Your task to perform on an android device: Search for acer predator on newegg.com, select the first entry, add it to the cart, then select checkout. Image 0: 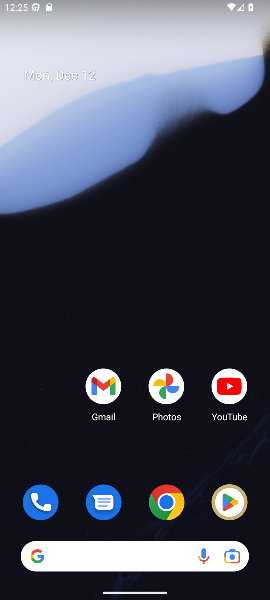
Step 0: click (175, 482)
Your task to perform on an android device: Search for acer predator on newegg.com, select the first entry, add it to the cart, then select checkout. Image 1: 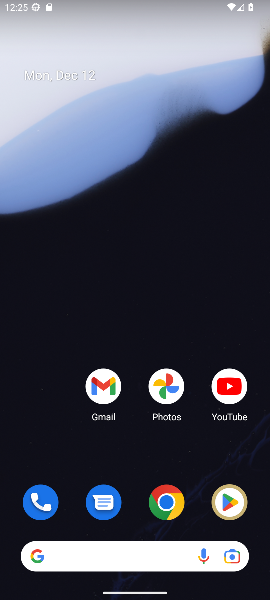
Step 1: click (175, 502)
Your task to perform on an android device: Search for acer predator on newegg.com, select the first entry, add it to the cart, then select checkout. Image 2: 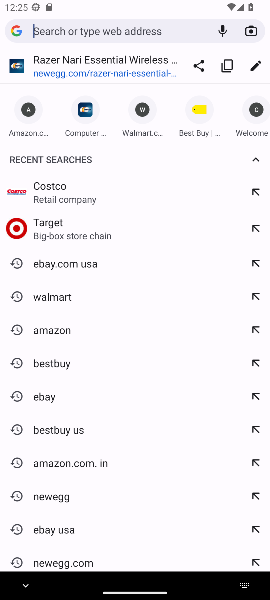
Step 2: type "newegg"
Your task to perform on an android device: Search for acer predator on newegg.com, select the first entry, add it to the cart, then select checkout. Image 3: 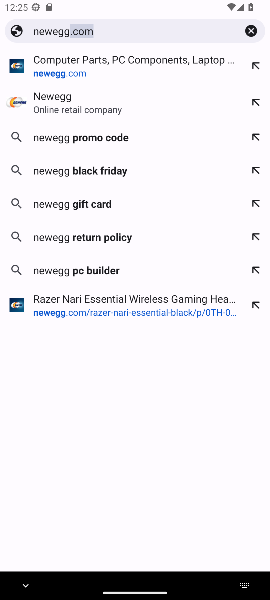
Step 3: click (147, 83)
Your task to perform on an android device: Search for acer predator on newegg.com, select the first entry, add it to the cart, then select checkout. Image 4: 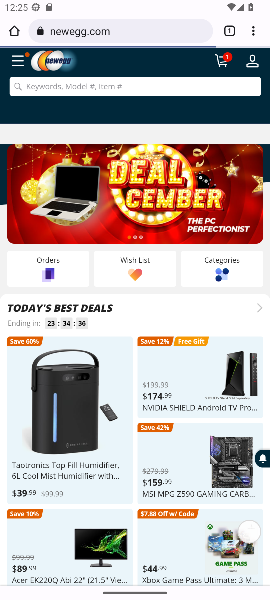
Step 4: click (147, 83)
Your task to perform on an android device: Search for acer predator on newegg.com, select the first entry, add it to the cart, then select checkout. Image 5: 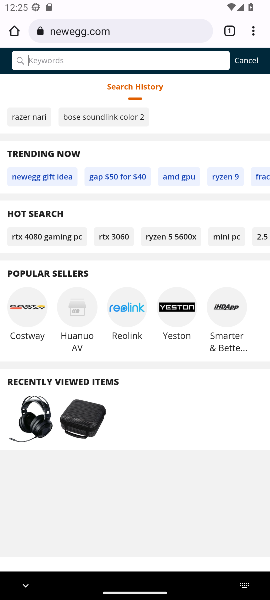
Step 5: type "acer predator"
Your task to perform on an android device: Search for acer predator on newegg.com, select the first entry, add it to the cart, then select checkout. Image 6: 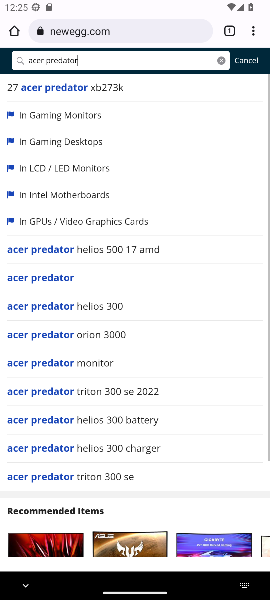
Step 6: click (78, 94)
Your task to perform on an android device: Search for acer predator on newegg.com, select the first entry, add it to the cart, then select checkout. Image 7: 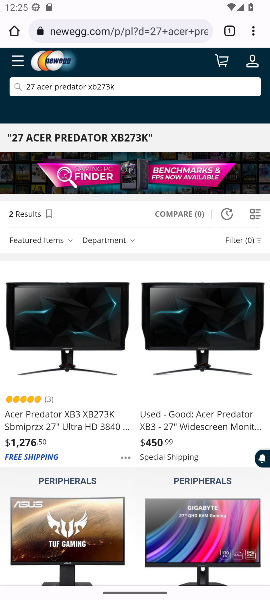
Step 7: click (64, 330)
Your task to perform on an android device: Search for acer predator on newegg.com, select the first entry, add it to the cart, then select checkout. Image 8: 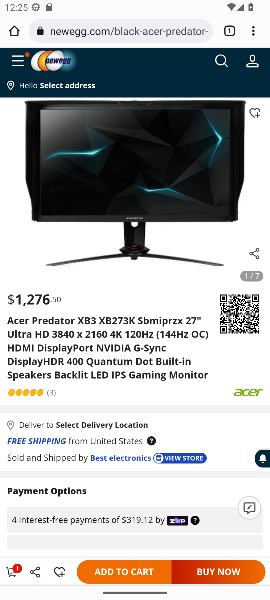
Step 8: click (128, 580)
Your task to perform on an android device: Search for acer predator on newegg.com, select the first entry, add it to the cart, then select checkout. Image 9: 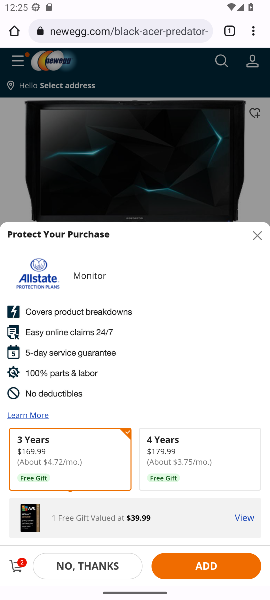
Step 9: task complete